Your task to perform on an android device: What is the news today? Image 0: 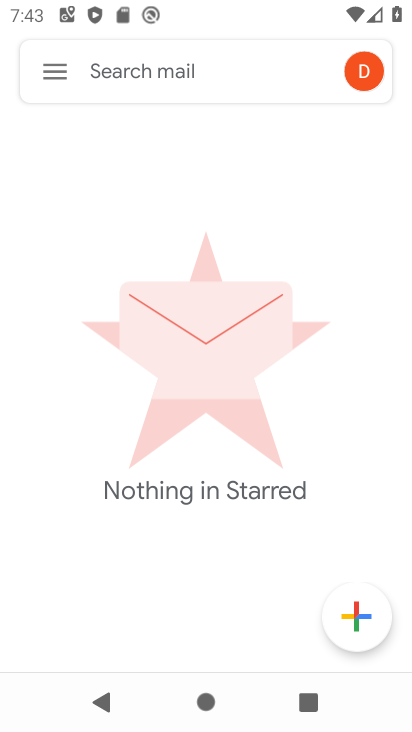
Step 0: press home button
Your task to perform on an android device: What is the news today? Image 1: 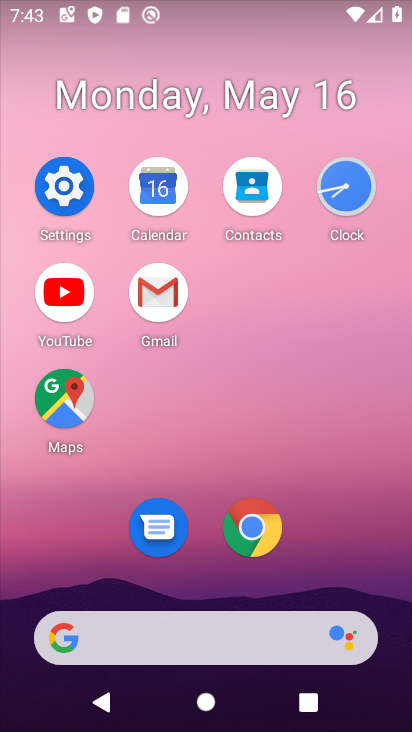
Step 1: drag from (203, 495) to (207, 170)
Your task to perform on an android device: What is the news today? Image 2: 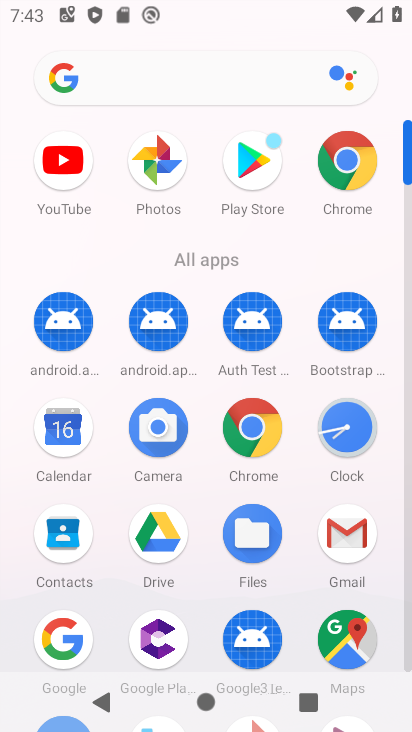
Step 2: drag from (67, 643) to (236, 285)
Your task to perform on an android device: What is the news today? Image 3: 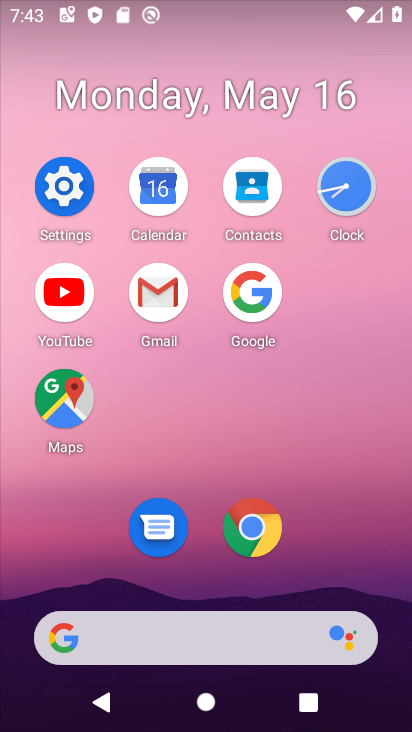
Step 3: click (253, 320)
Your task to perform on an android device: What is the news today? Image 4: 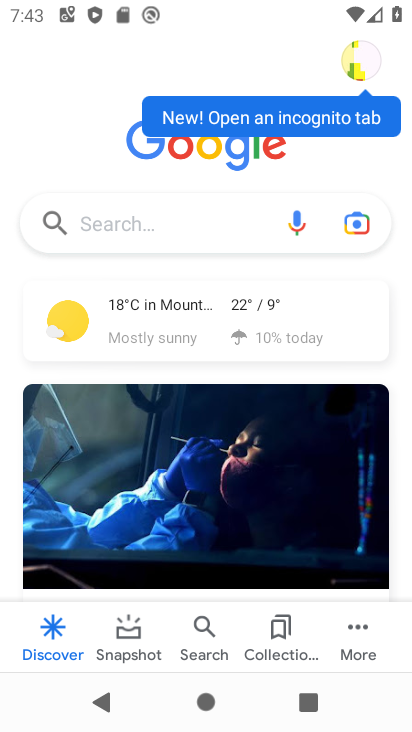
Step 4: click (193, 217)
Your task to perform on an android device: What is the news today? Image 5: 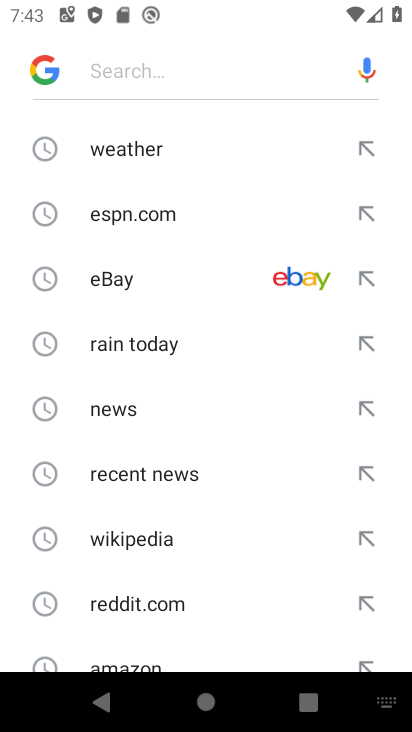
Step 5: click (191, 388)
Your task to perform on an android device: What is the news today? Image 6: 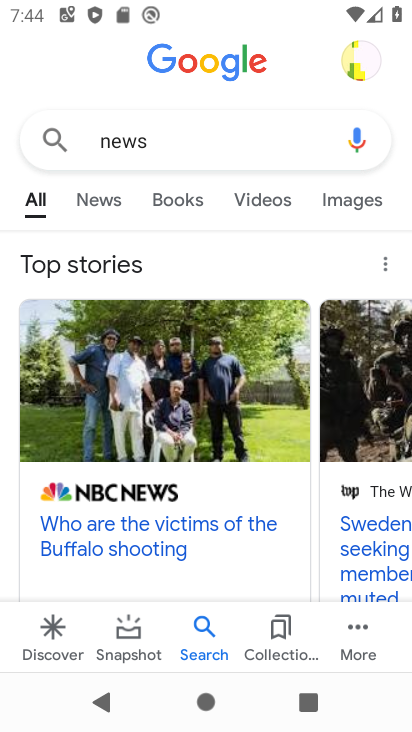
Step 6: task complete